Your task to perform on an android device: turn off picture-in-picture Image 0: 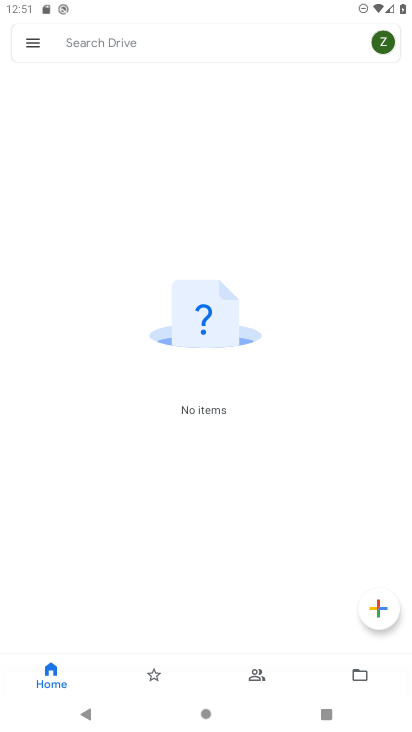
Step 0: press home button
Your task to perform on an android device: turn off picture-in-picture Image 1: 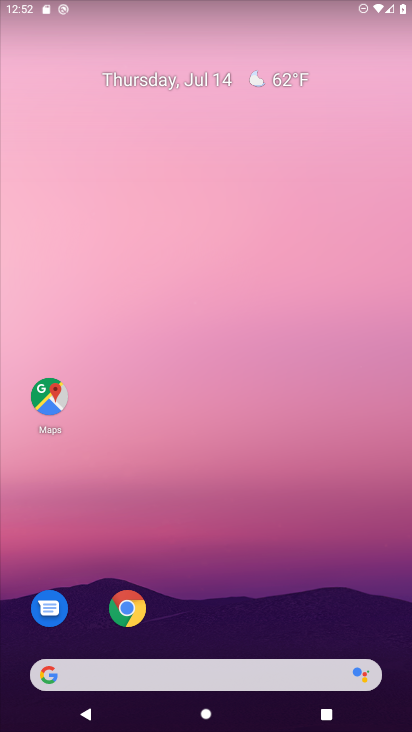
Step 1: drag from (242, 628) to (242, 557)
Your task to perform on an android device: turn off picture-in-picture Image 2: 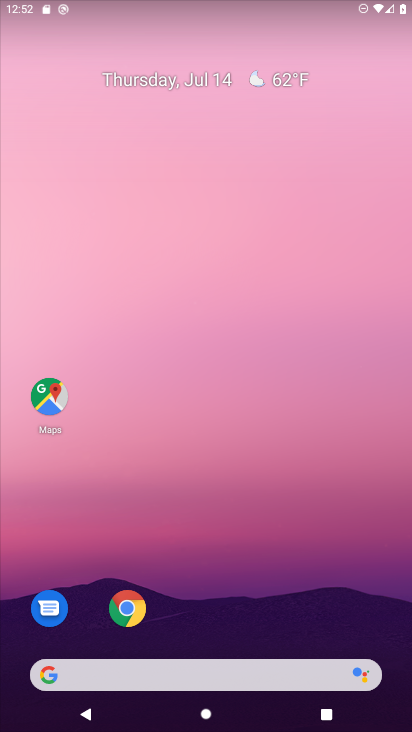
Step 2: drag from (242, 263) to (242, 127)
Your task to perform on an android device: turn off picture-in-picture Image 3: 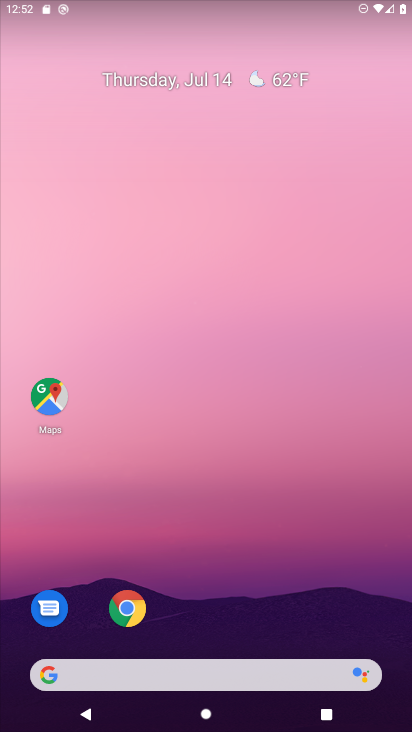
Step 3: drag from (228, 632) to (233, 60)
Your task to perform on an android device: turn off picture-in-picture Image 4: 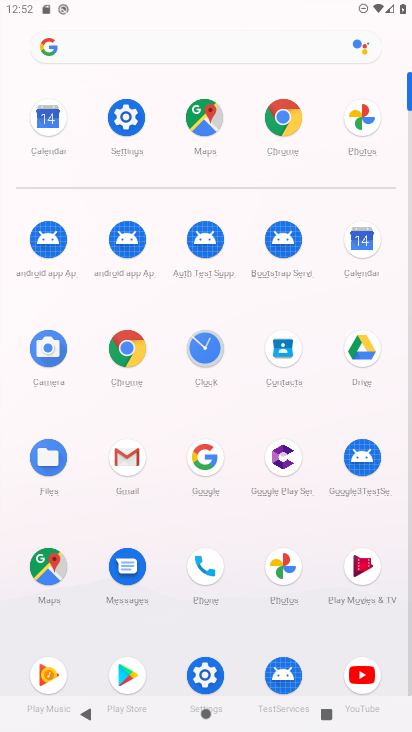
Step 4: click (122, 120)
Your task to perform on an android device: turn off picture-in-picture Image 5: 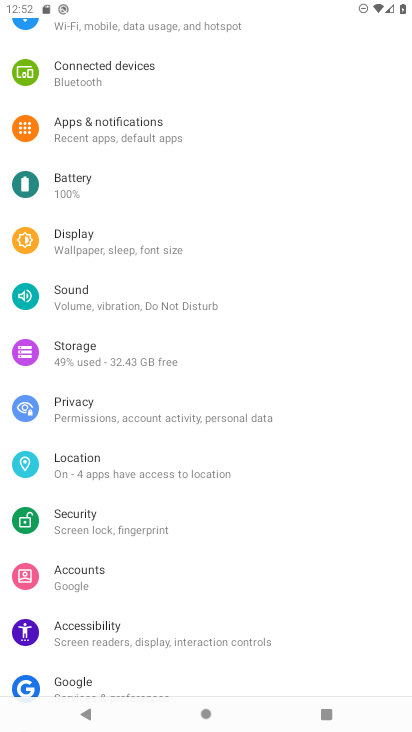
Step 5: click (91, 125)
Your task to perform on an android device: turn off picture-in-picture Image 6: 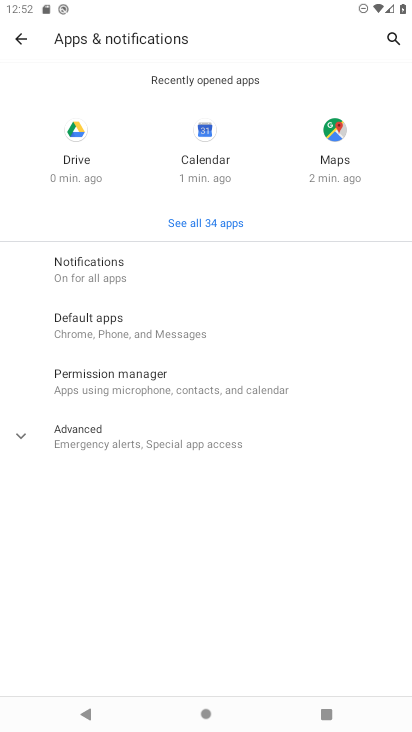
Step 6: click (135, 440)
Your task to perform on an android device: turn off picture-in-picture Image 7: 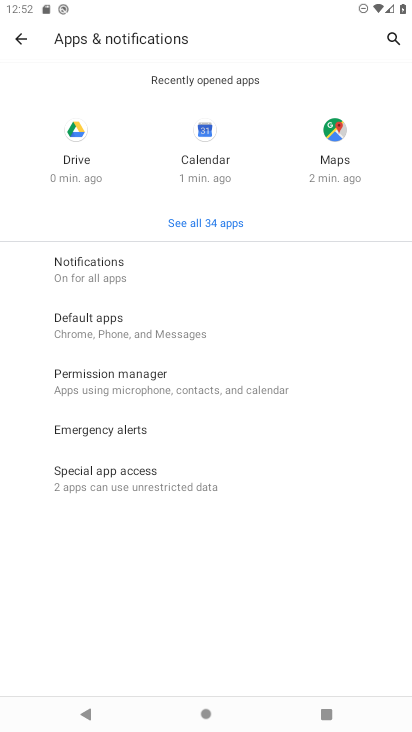
Step 7: click (116, 478)
Your task to perform on an android device: turn off picture-in-picture Image 8: 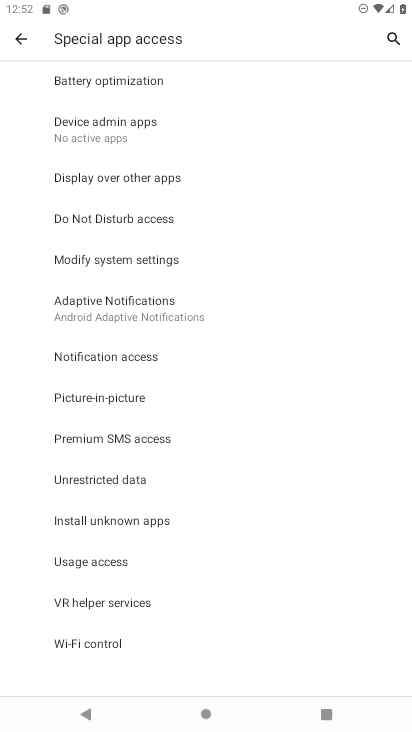
Step 8: click (102, 397)
Your task to perform on an android device: turn off picture-in-picture Image 9: 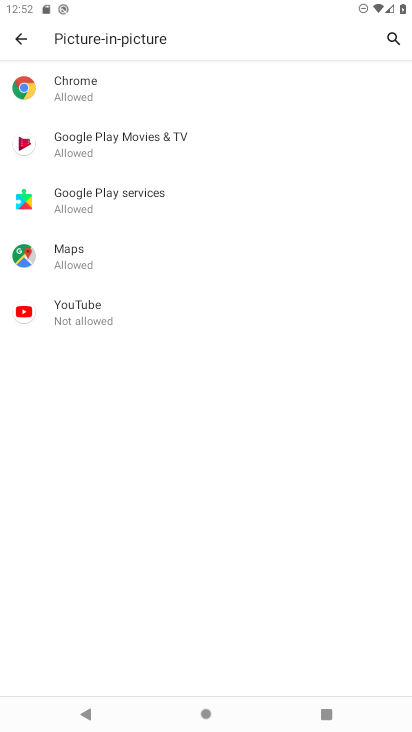
Step 9: click (75, 305)
Your task to perform on an android device: turn off picture-in-picture Image 10: 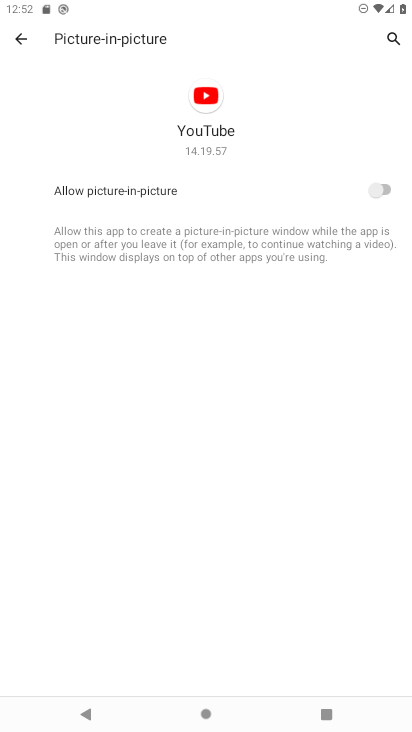
Step 10: task complete